Your task to perform on an android device: Search for sushi restaurants on Maps Image 0: 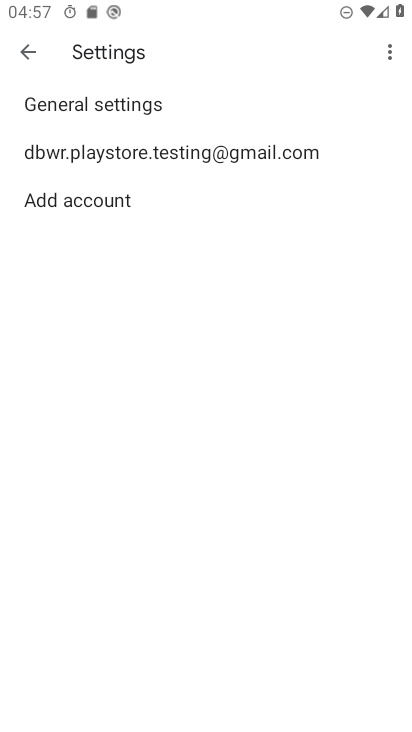
Step 0: click (25, 54)
Your task to perform on an android device: Search for sushi restaurants on Maps Image 1: 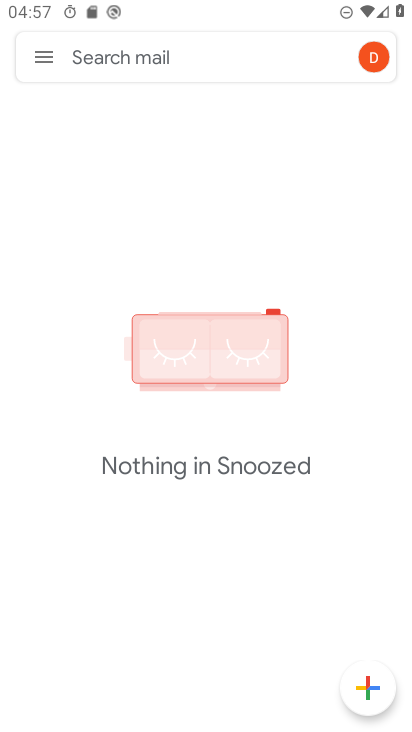
Step 1: press home button
Your task to perform on an android device: Search for sushi restaurants on Maps Image 2: 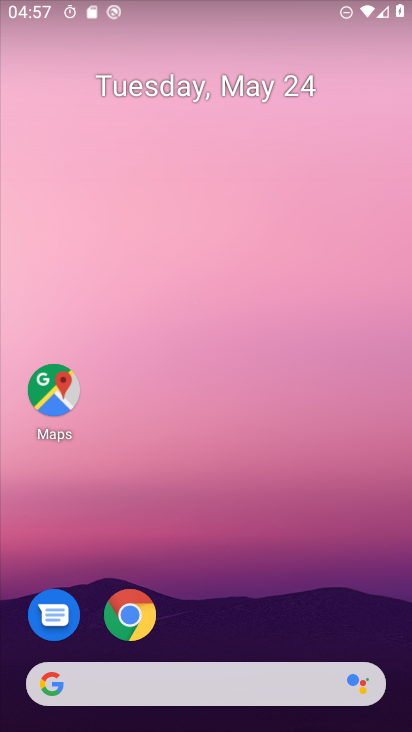
Step 2: click (45, 389)
Your task to perform on an android device: Search for sushi restaurants on Maps Image 3: 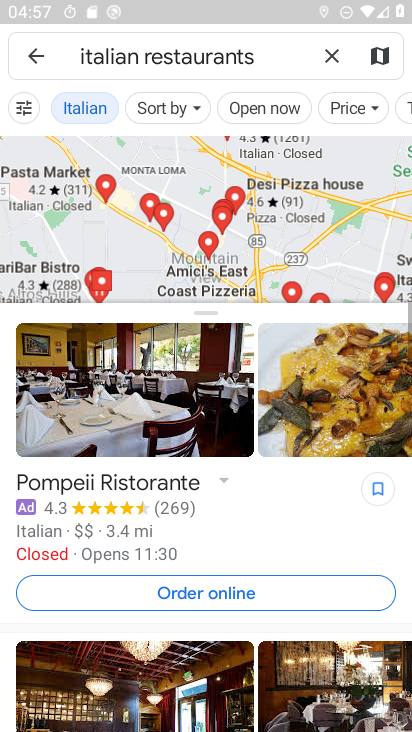
Step 3: click (333, 47)
Your task to perform on an android device: Search for sushi restaurants on Maps Image 4: 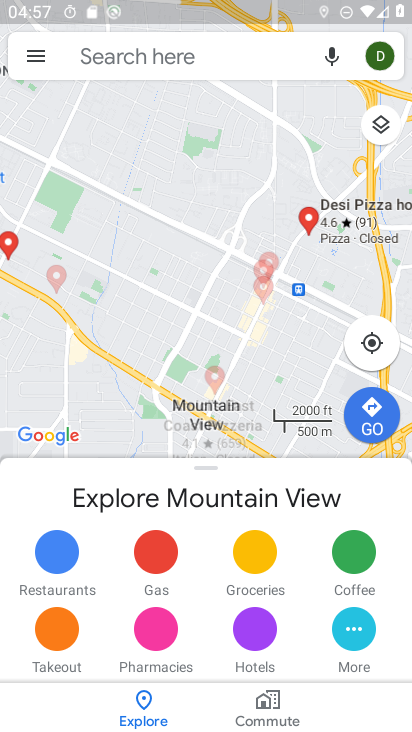
Step 4: click (337, 45)
Your task to perform on an android device: Search for sushi restaurants on Maps Image 5: 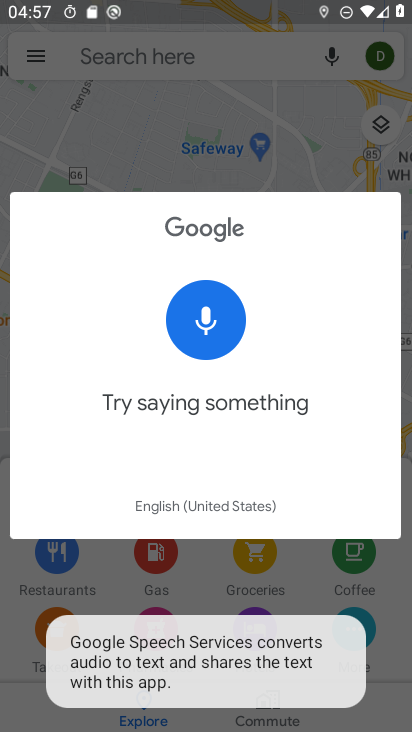
Step 5: click (271, 118)
Your task to perform on an android device: Search for sushi restaurants on Maps Image 6: 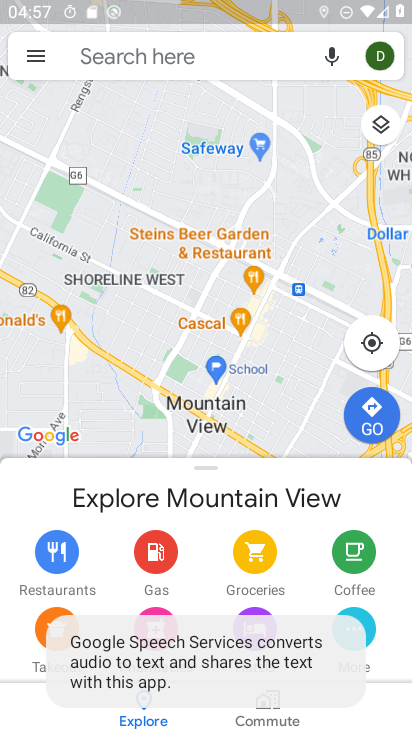
Step 6: click (168, 57)
Your task to perform on an android device: Search for sushi restaurants on Maps Image 7: 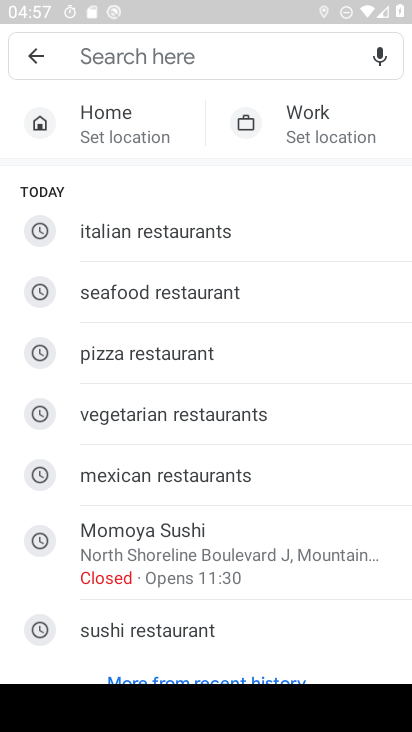
Step 7: click (163, 623)
Your task to perform on an android device: Search for sushi restaurants on Maps Image 8: 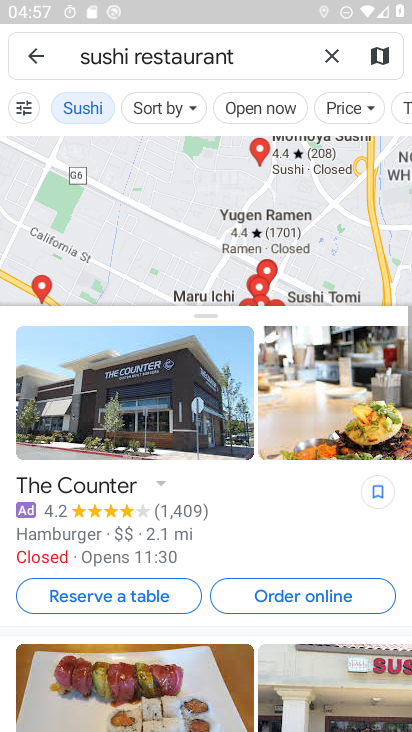
Step 8: task complete